Your task to perform on an android device: Open settings on Google Maps Image 0: 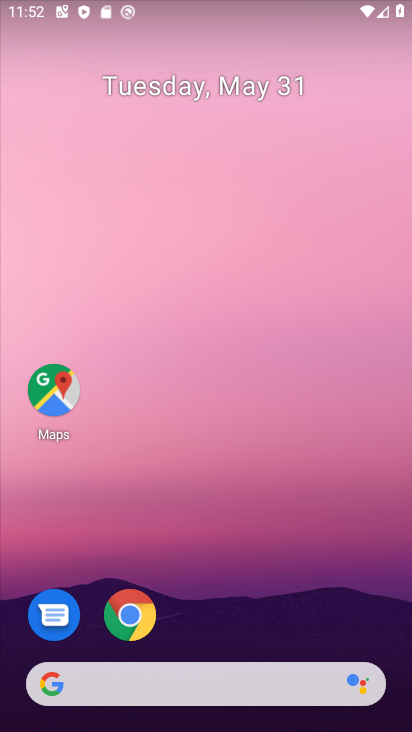
Step 0: task complete